Your task to perform on an android device: What's the weather going to be tomorrow? Image 0: 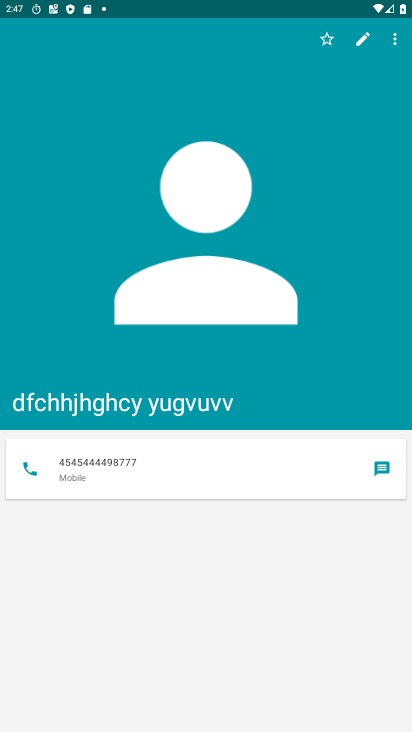
Step 0: press home button
Your task to perform on an android device: What's the weather going to be tomorrow? Image 1: 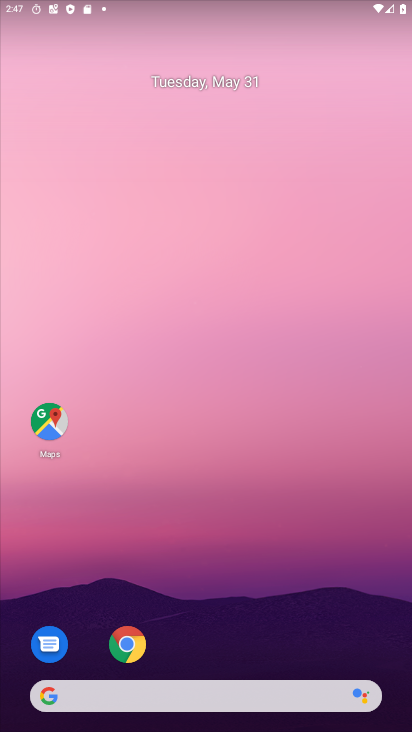
Step 1: drag from (0, 250) to (409, 267)
Your task to perform on an android device: What's the weather going to be tomorrow? Image 2: 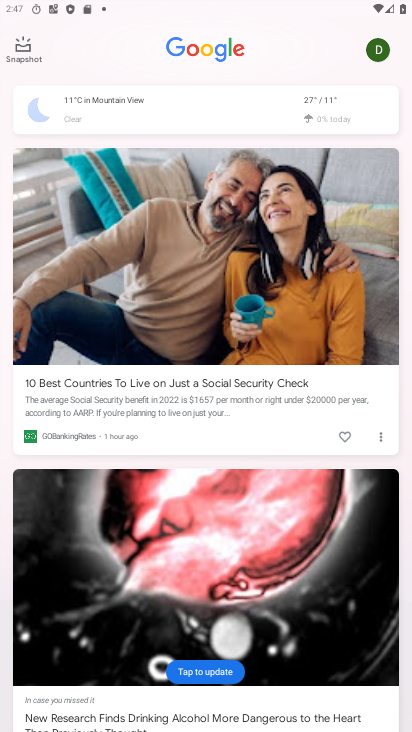
Step 2: click (336, 100)
Your task to perform on an android device: What's the weather going to be tomorrow? Image 3: 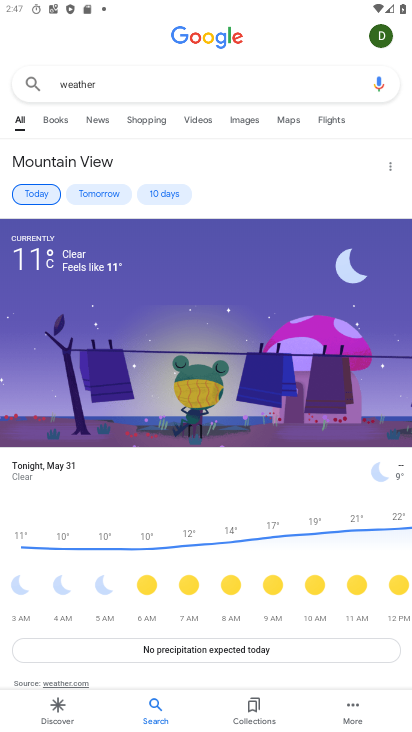
Step 3: click (75, 194)
Your task to perform on an android device: What's the weather going to be tomorrow? Image 4: 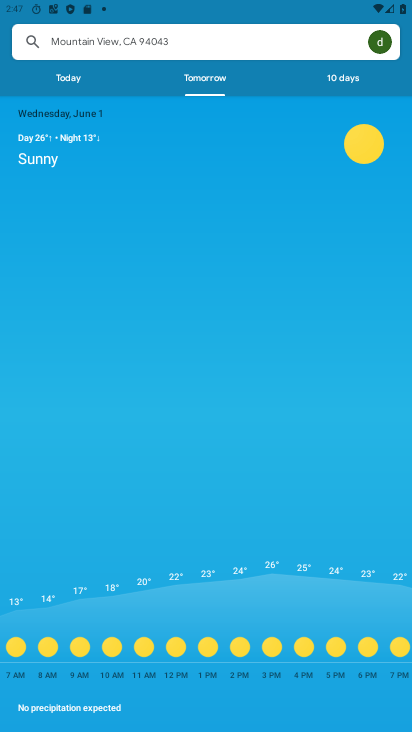
Step 4: task complete